Your task to perform on an android device: Open calendar and show me the first week of next month Image 0: 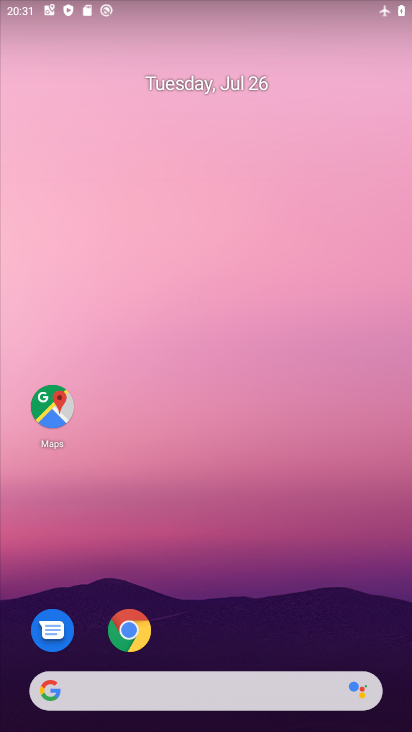
Step 0: drag from (253, 642) to (297, 123)
Your task to perform on an android device: Open calendar and show me the first week of next month Image 1: 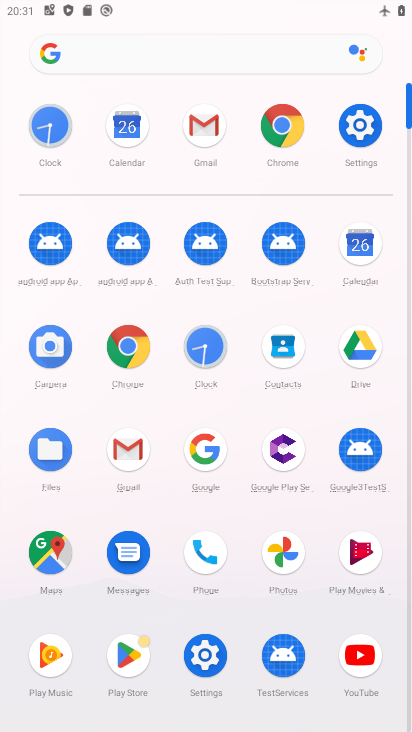
Step 1: click (137, 139)
Your task to perform on an android device: Open calendar and show me the first week of next month Image 2: 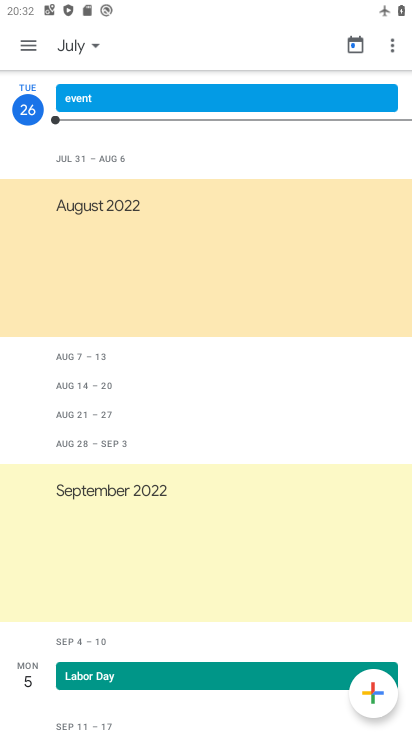
Step 2: task complete